Your task to perform on an android device: turn off notifications in google photos Image 0: 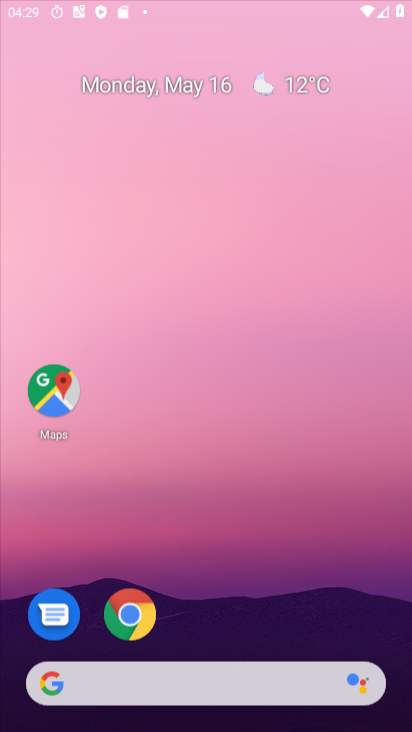
Step 0: click (138, 0)
Your task to perform on an android device: turn off notifications in google photos Image 1: 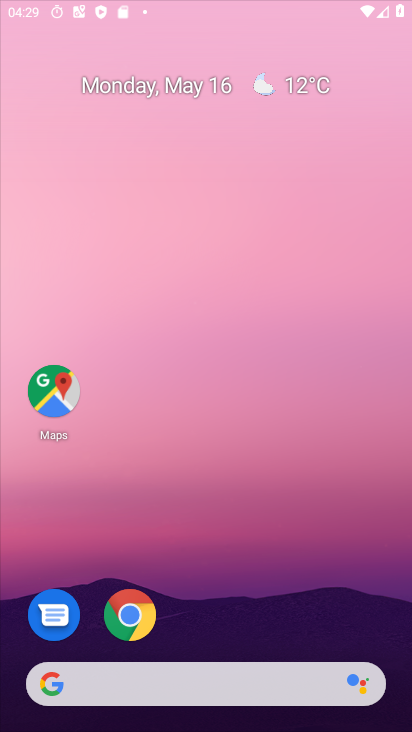
Step 1: drag from (215, 542) to (180, 17)
Your task to perform on an android device: turn off notifications in google photos Image 2: 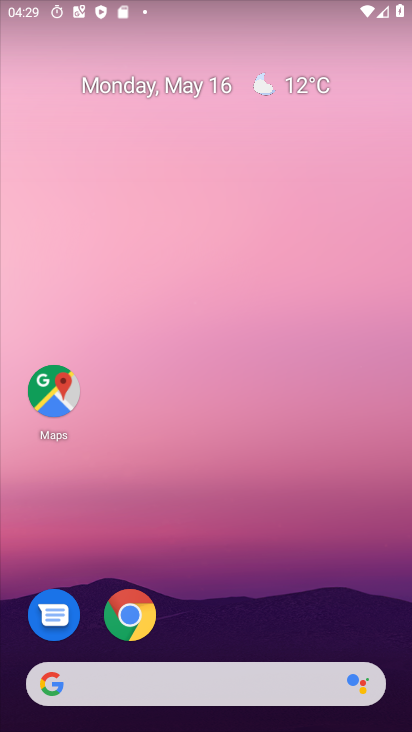
Step 2: drag from (212, 513) to (144, 12)
Your task to perform on an android device: turn off notifications in google photos Image 3: 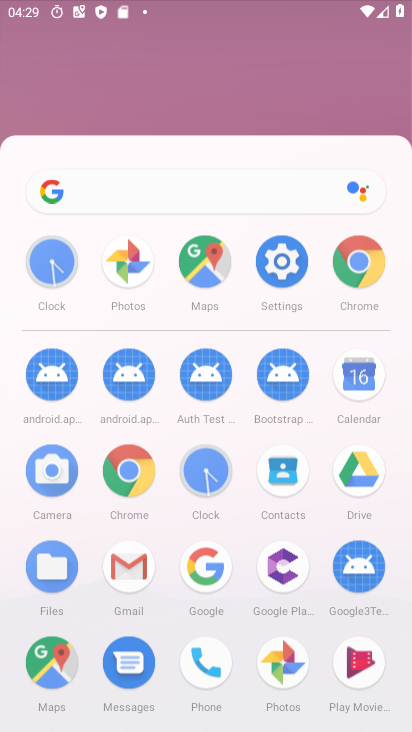
Step 3: drag from (214, 441) to (171, 67)
Your task to perform on an android device: turn off notifications in google photos Image 4: 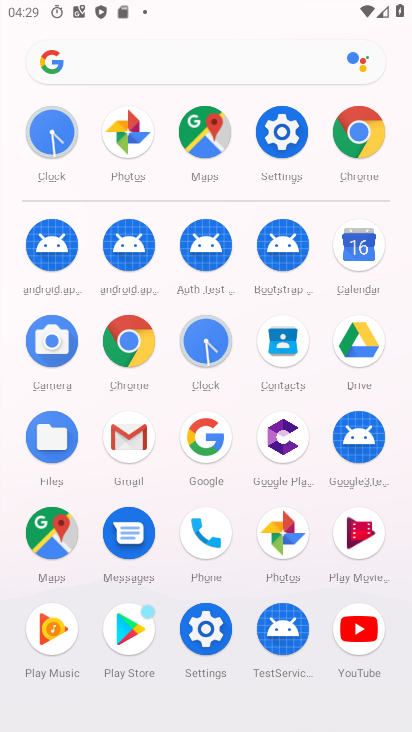
Step 4: drag from (221, 177) to (271, 34)
Your task to perform on an android device: turn off notifications in google photos Image 5: 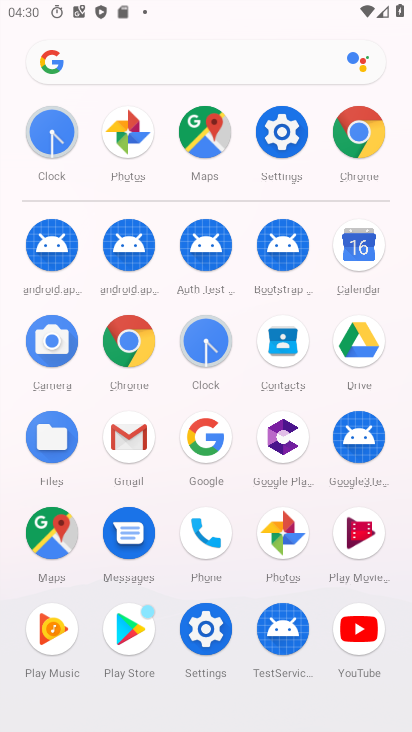
Step 5: click (214, 434)
Your task to perform on an android device: turn off notifications in google photos Image 6: 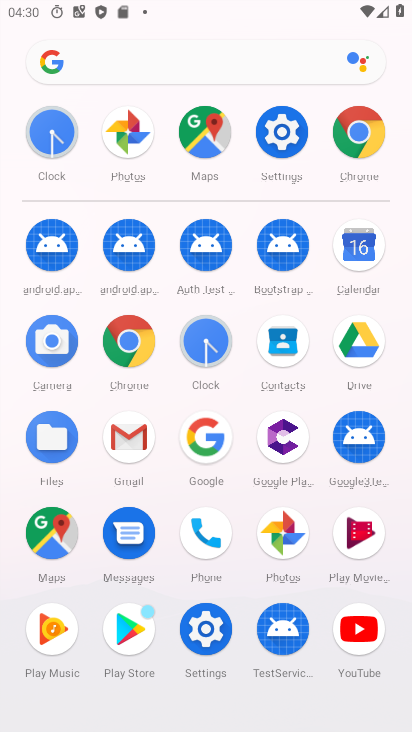
Step 6: click (214, 434)
Your task to perform on an android device: turn off notifications in google photos Image 7: 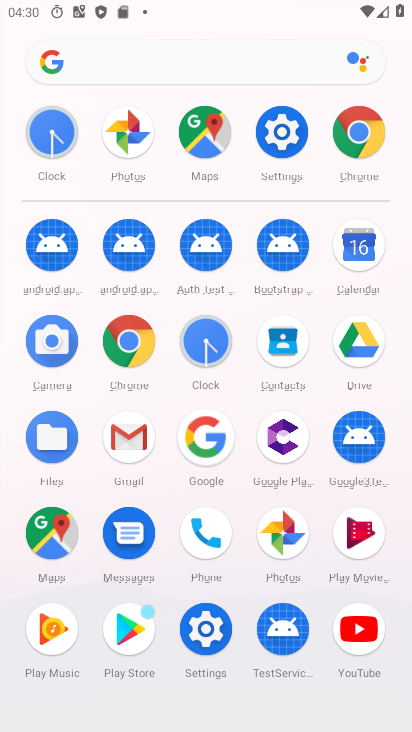
Step 7: click (214, 434)
Your task to perform on an android device: turn off notifications in google photos Image 8: 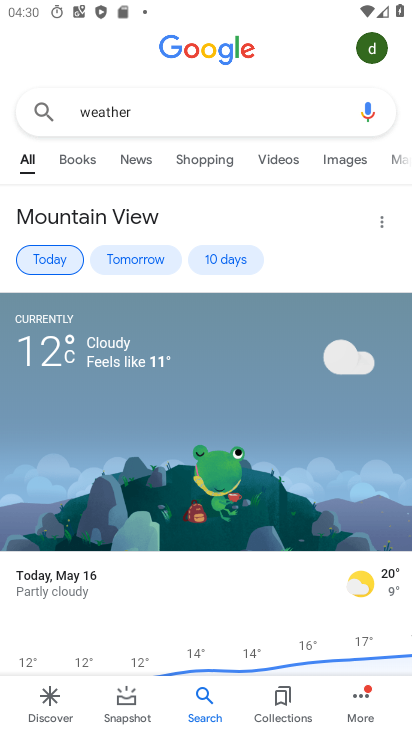
Step 8: task complete